Your task to perform on an android device: Show me popular videos on Youtube Image 0: 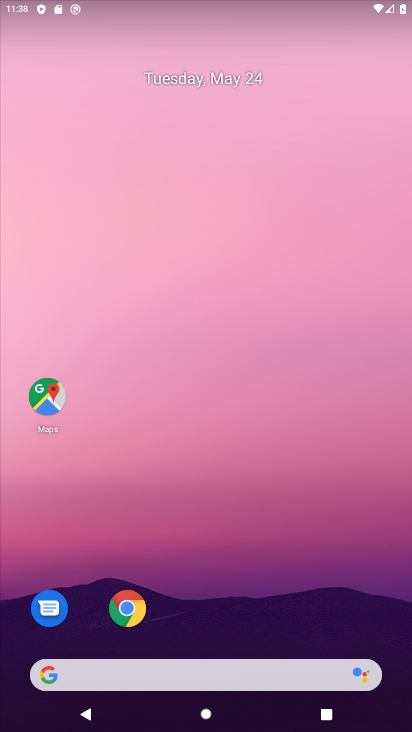
Step 0: drag from (193, 636) to (277, 166)
Your task to perform on an android device: Show me popular videos on Youtube Image 1: 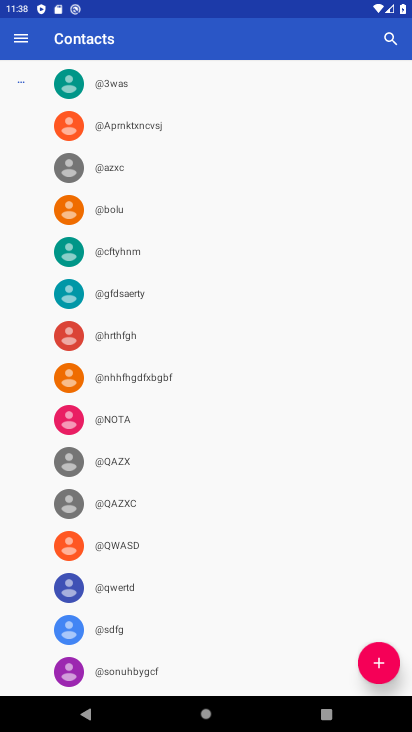
Step 1: press home button
Your task to perform on an android device: Show me popular videos on Youtube Image 2: 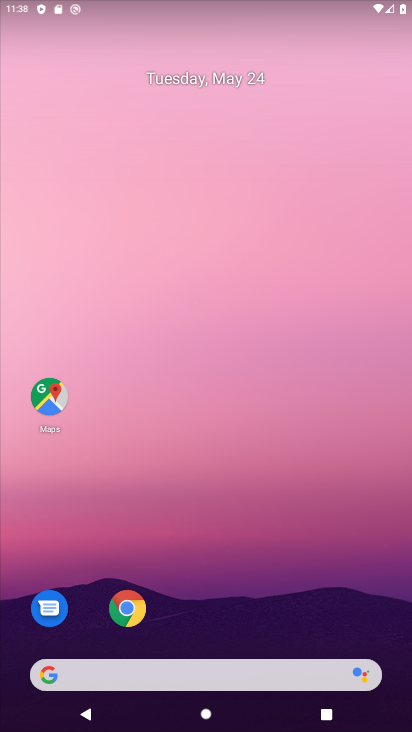
Step 2: drag from (147, 627) to (235, 192)
Your task to perform on an android device: Show me popular videos on Youtube Image 3: 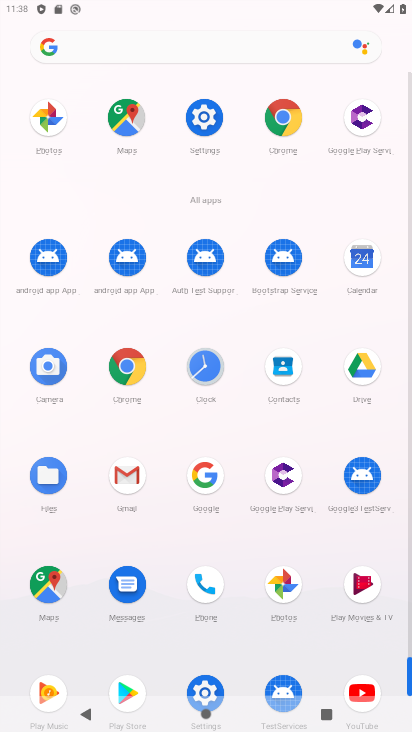
Step 3: click (362, 681)
Your task to perform on an android device: Show me popular videos on Youtube Image 4: 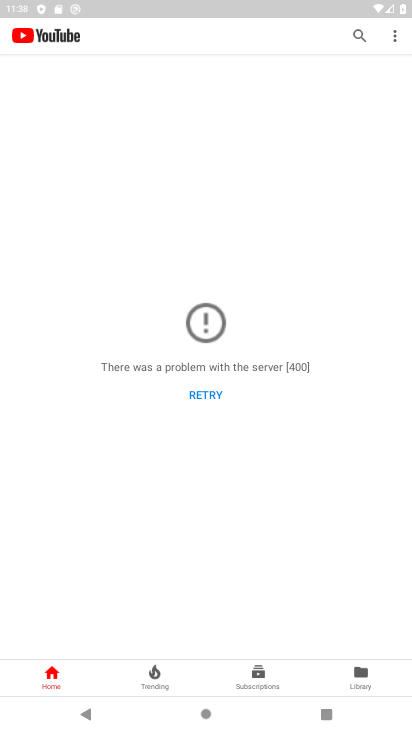
Step 4: click (362, 681)
Your task to perform on an android device: Show me popular videos on Youtube Image 5: 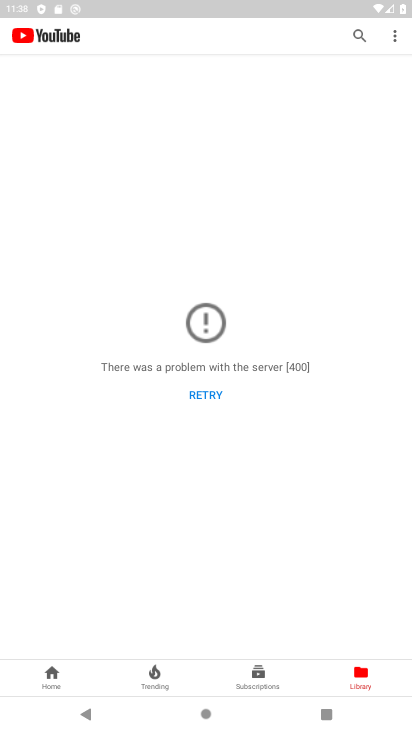
Step 5: task complete